Your task to perform on an android device: check google app version Image 0: 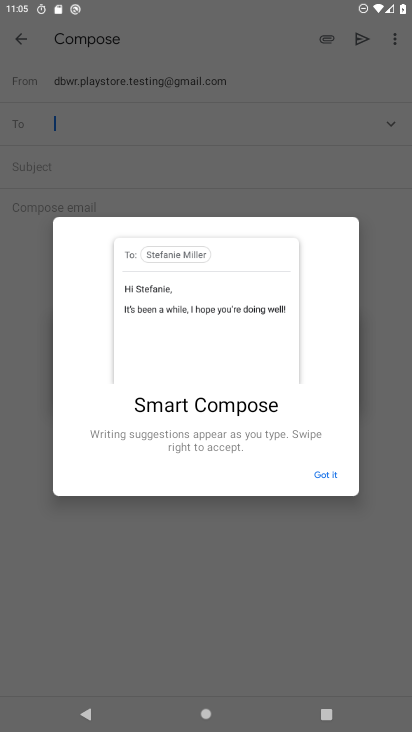
Step 0: press home button
Your task to perform on an android device: check google app version Image 1: 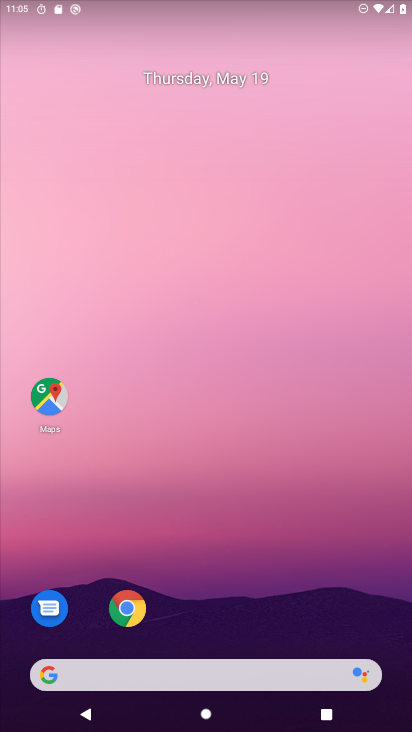
Step 1: drag from (390, 532) to (353, 184)
Your task to perform on an android device: check google app version Image 2: 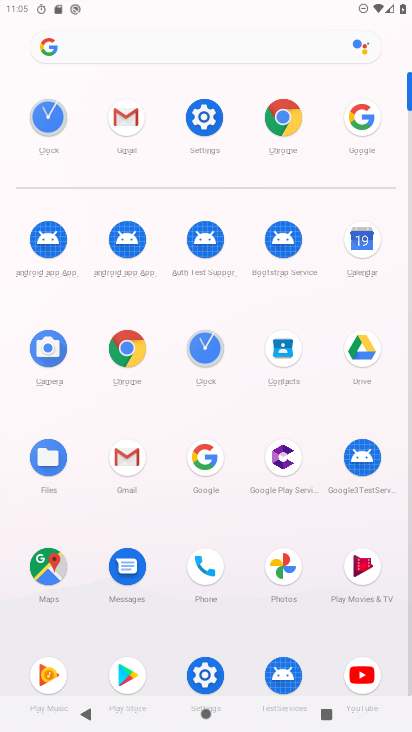
Step 2: click (204, 456)
Your task to perform on an android device: check google app version Image 3: 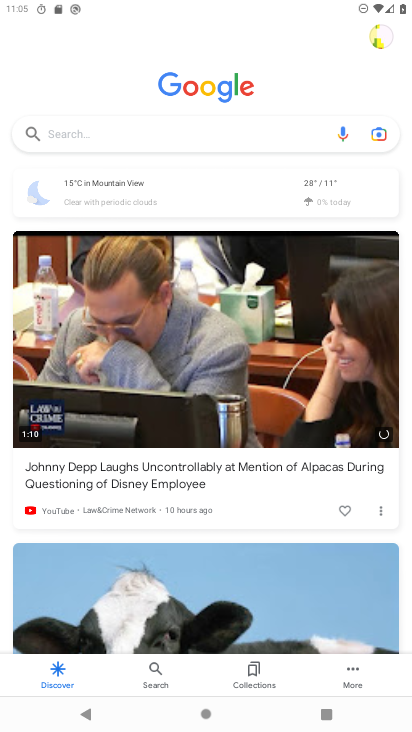
Step 3: drag from (267, 636) to (250, 388)
Your task to perform on an android device: check google app version Image 4: 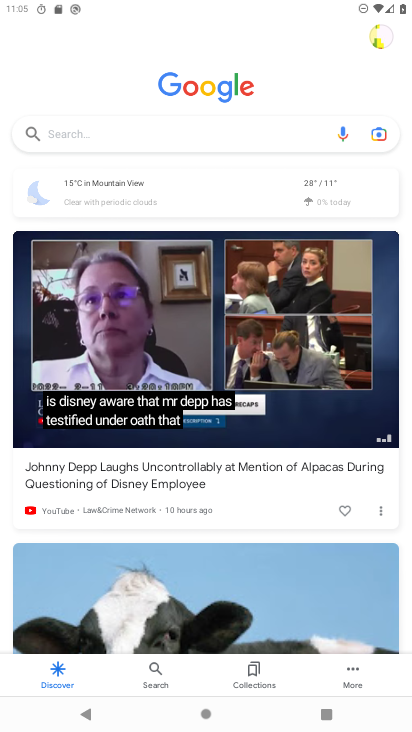
Step 4: click (337, 674)
Your task to perform on an android device: check google app version Image 5: 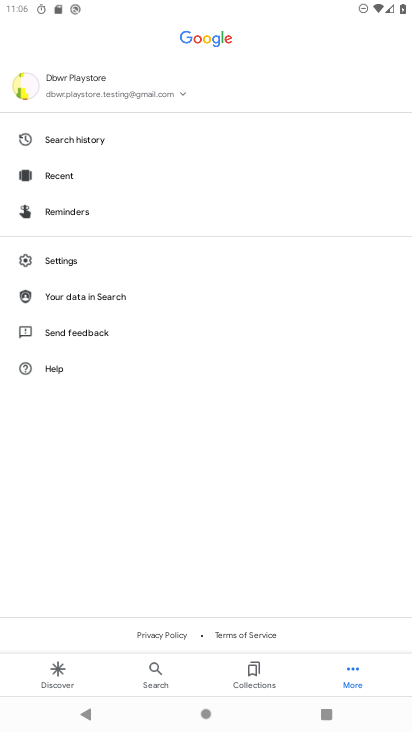
Step 5: click (52, 258)
Your task to perform on an android device: check google app version Image 6: 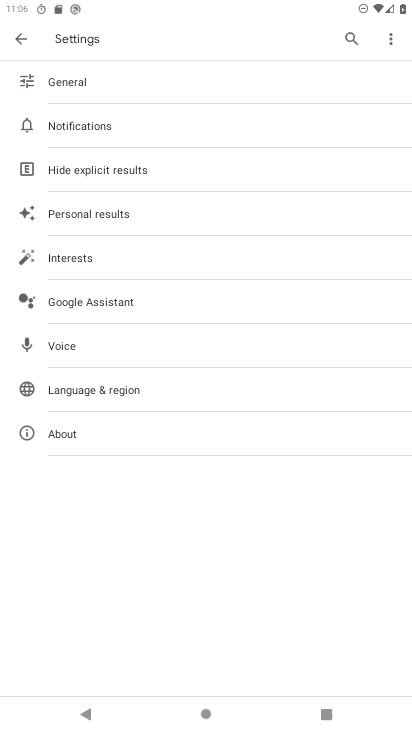
Step 6: click (114, 432)
Your task to perform on an android device: check google app version Image 7: 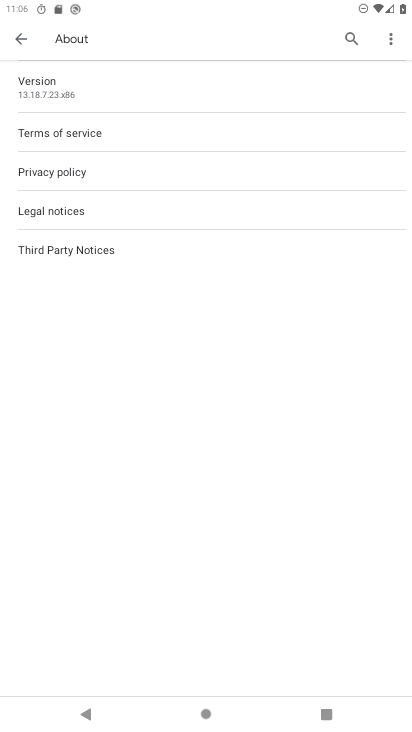
Step 7: click (80, 93)
Your task to perform on an android device: check google app version Image 8: 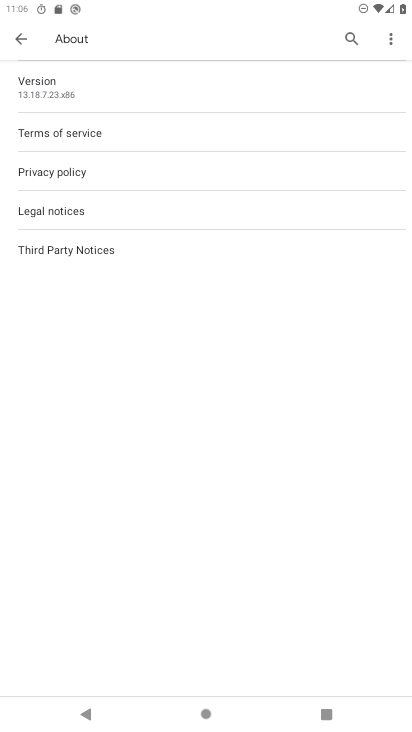
Step 8: task complete